Your task to perform on an android device: toggle priority inbox in the gmail app Image 0: 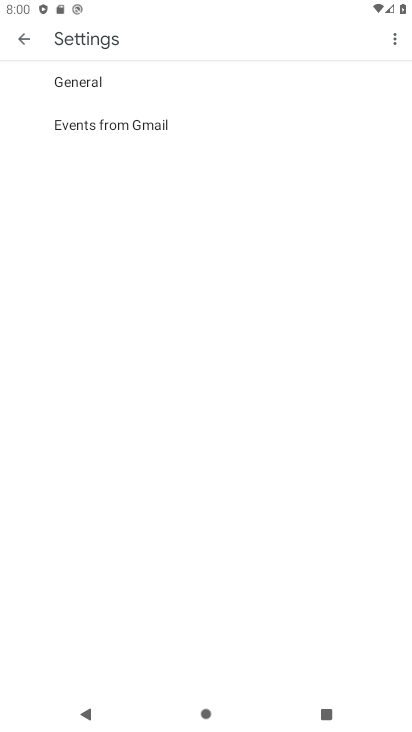
Step 0: press home button
Your task to perform on an android device: toggle priority inbox in the gmail app Image 1: 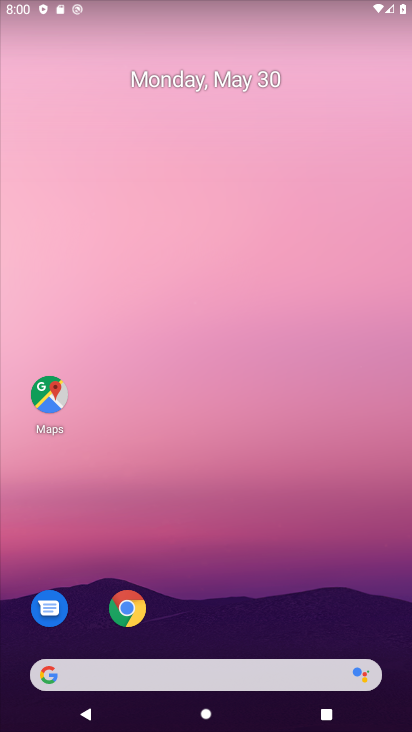
Step 1: drag from (207, 624) to (210, 199)
Your task to perform on an android device: toggle priority inbox in the gmail app Image 2: 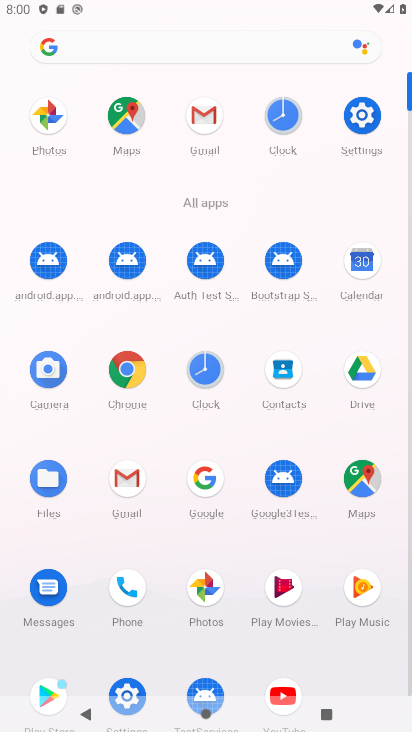
Step 2: click (208, 105)
Your task to perform on an android device: toggle priority inbox in the gmail app Image 3: 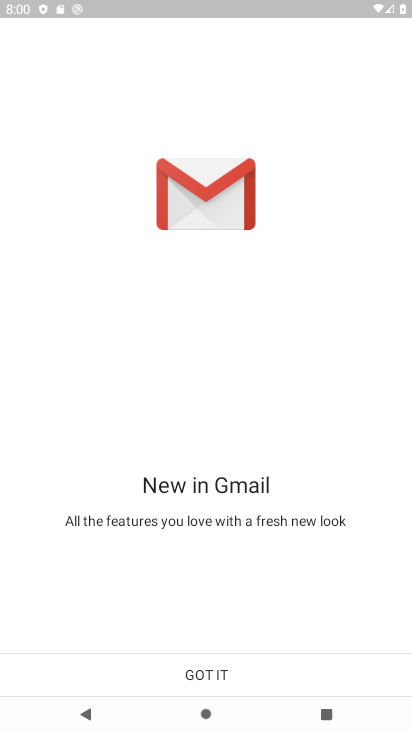
Step 3: click (160, 668)
Your task to perform on an android device: toggle priority inbox in the gmail app Image 4: 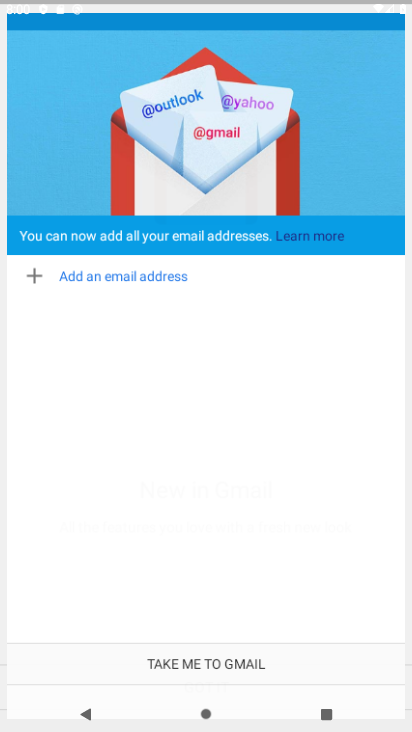
Step 4: click (160, 668)
Your task to perform on an android device: toggle priority inbox in the gmail app Image 5: 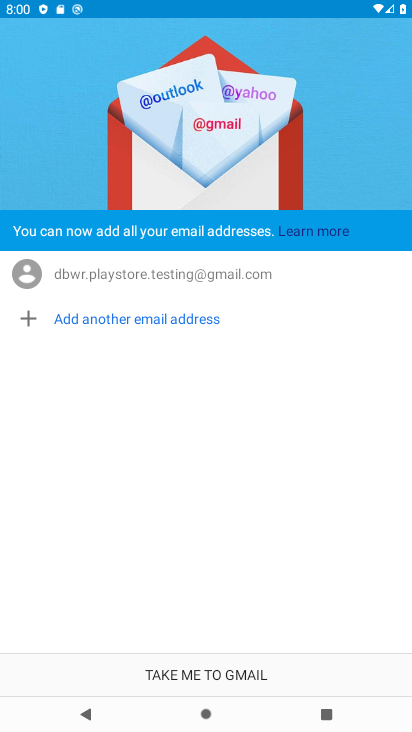
Step 5: click (160, 668)
Your task to perform on an android device: toggle priority inbox in the gmail app Image 6: 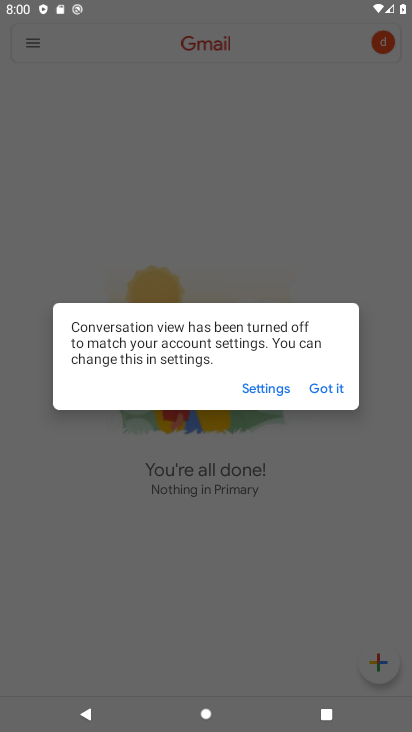
Step 6: click (313, 392)
Your task to perform on an android device: toggle priority inbox in the gmail app Image 7: 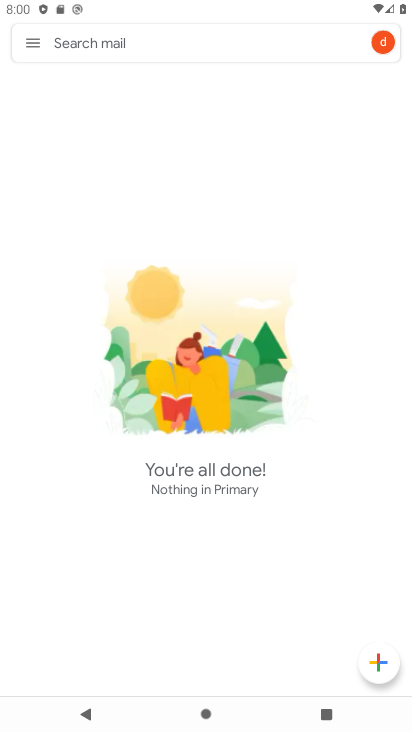
Step 7: click (30, 47)
Your task to perform on an android device: toggle priority inbox in the gmail app Image 8: 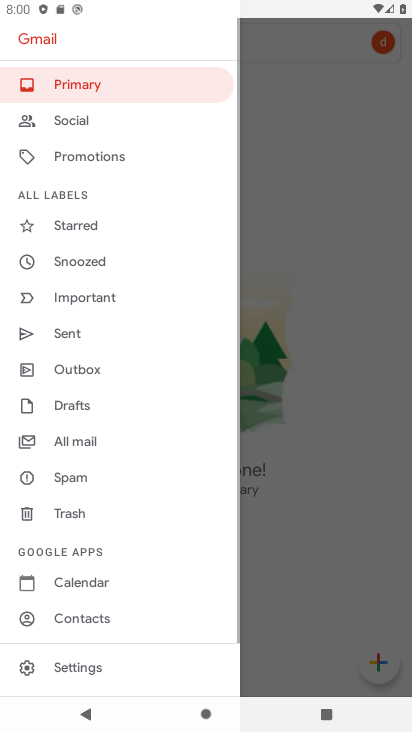
Step 8: drag from (91, 620) to (103, 308)
Your task to perform on an android device: toggle priority inbox in the gmail app Image 9: 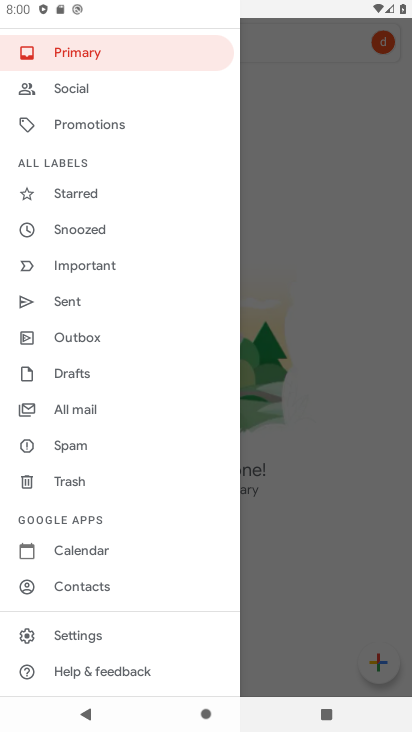
Step 9: click (92, 621)
Your task to perform on an android device: toggle priority inbox in the gmail app Image 10: 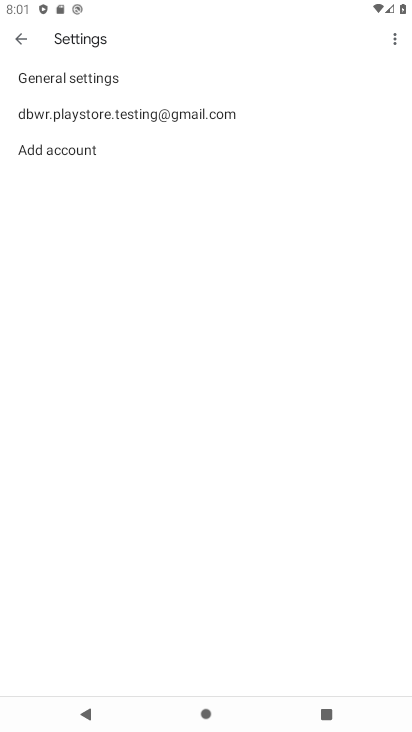
Step 10: click (124, 116)
Your task to perform on an android device: toggle priority inbox in the gmail app Image 11: 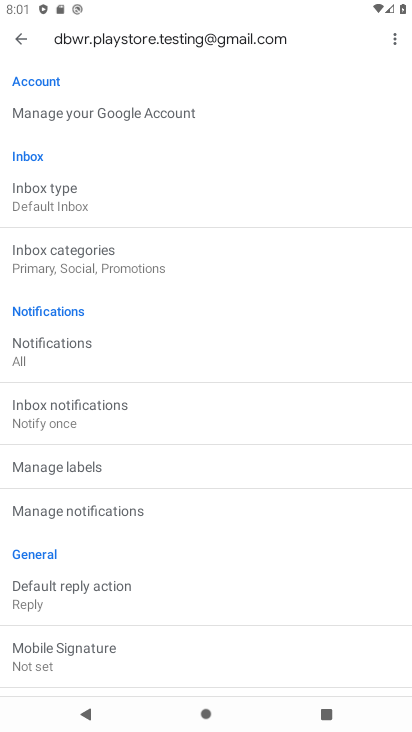
Step 11: click (72, 203)
Your task to perform on an android device: toggle priority inbox in the gmail app Image 12: 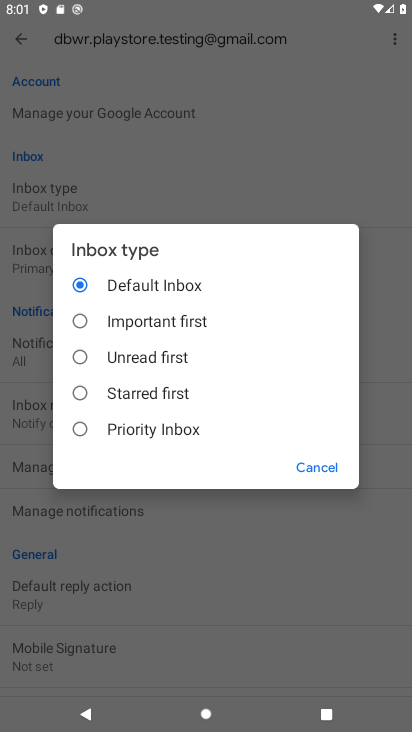
Step 12: click (133, 432)
Your task to perform on an android device: toggle priority inbox in the gmail app Image 13: 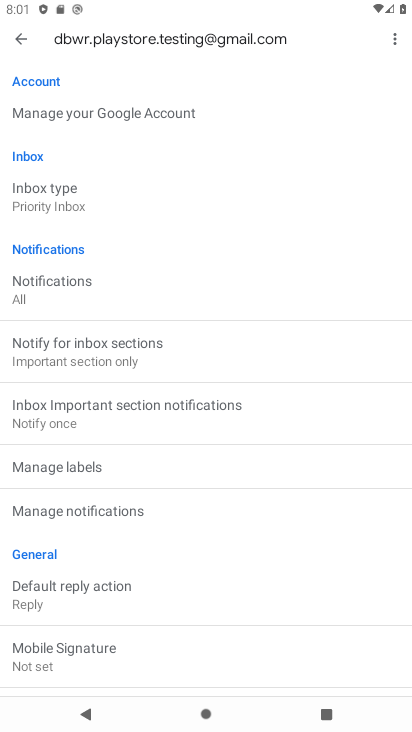
Step 13: task complete